Your task to perform on an android device: move a message to another label in the gmail app Image 0: 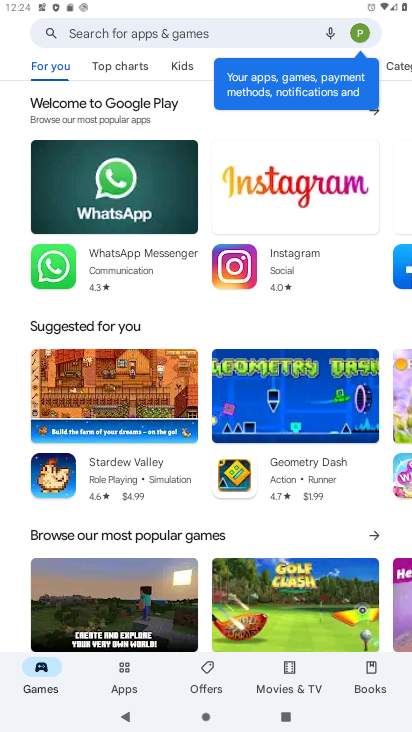
Step 0: press home button
Your task to perform on an android device: move a message to another label in the gmail app Image 1: 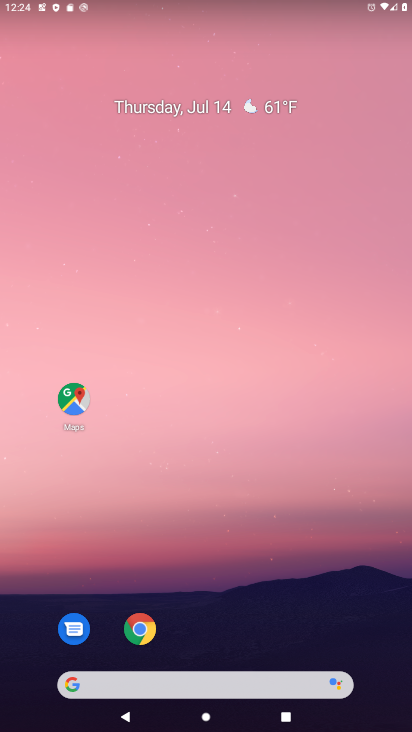
Step 1: drag from (252, 590) to (188, 69)
Your task to perform on an android device: move a message to another label in the gmail app Image 2: 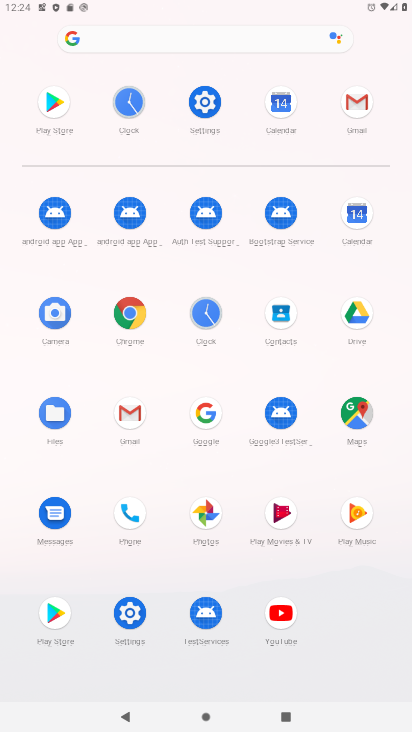
Step 2: click (124, 419)
Your task to perform on an android device: move a message to another label in the gmail app Image 3: 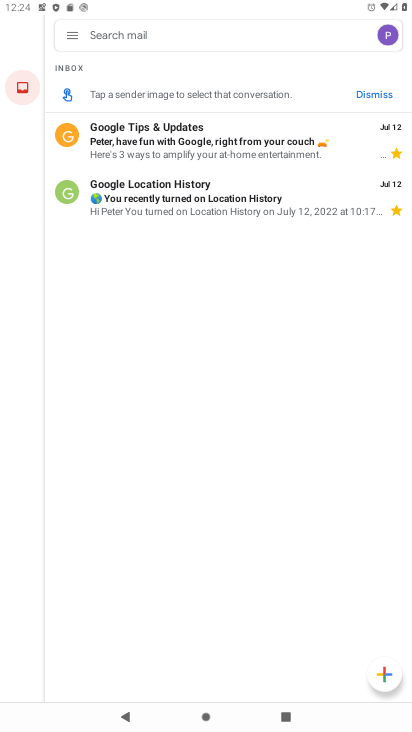
Step 3: click (156, 118)
Your task to perform on an android device: move a message to another label in the gmail app Image 4: 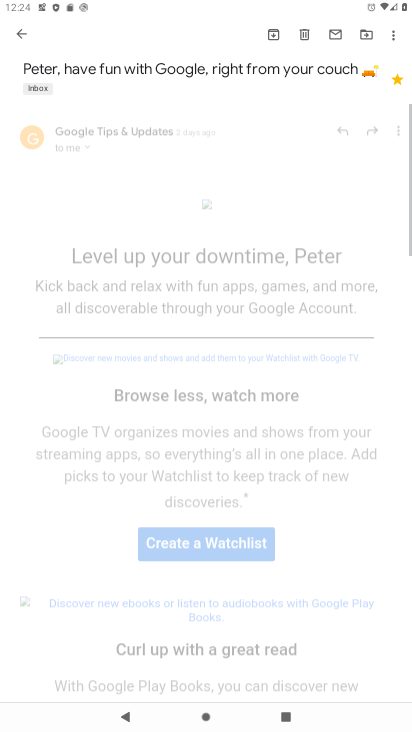
Step 4: click (394, 34)
Your task to perform on an android device: move a message to another label in the gmail app Image 5: 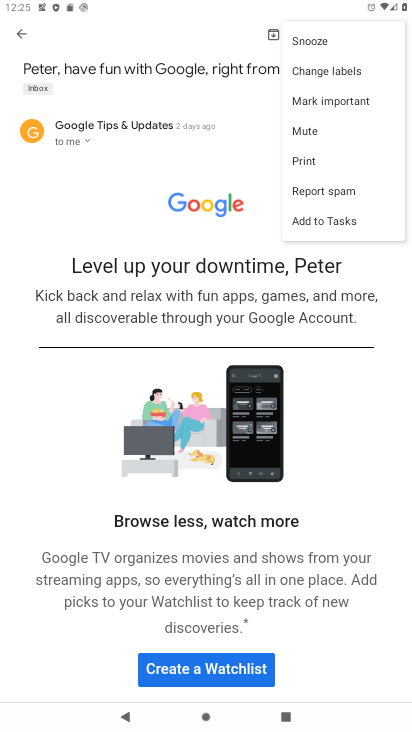
Step 5: click (343, 74)
Your task to perform on an android device: move a message to another label in the gmail app Image 6: 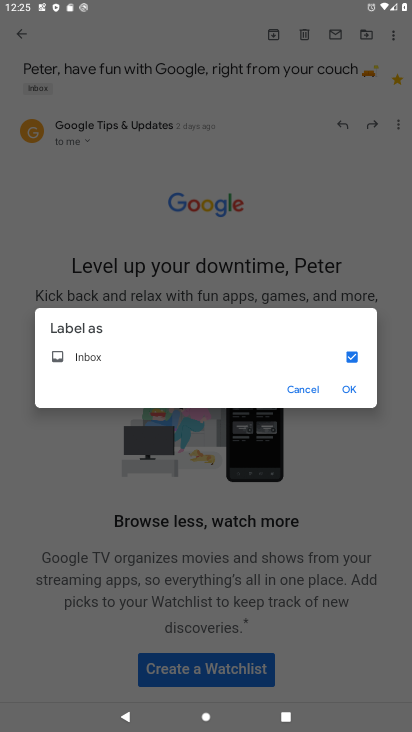
Step 6: click (347, 388)
Your task to perform on an android device: move a message to another label in the gmail app Image 7: 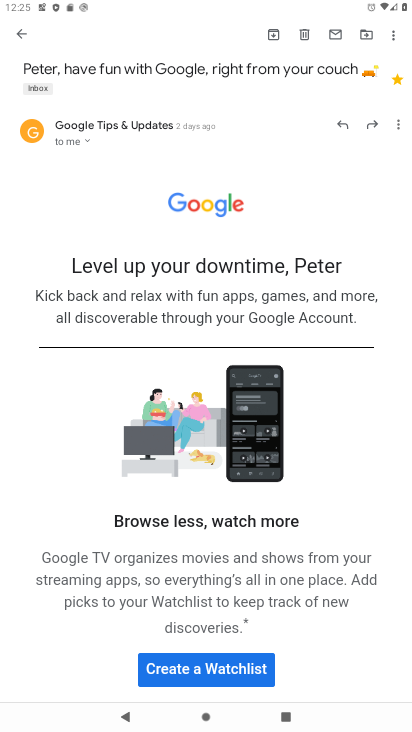
Step 7: task complete